Your task to perform on an android device: Open location settings Image 0: 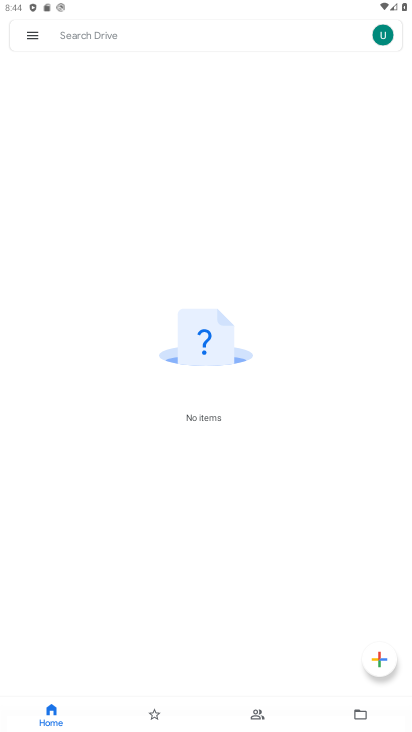
Step 0: press home button
Your task to perform on an android device: Open location settings Image 1: 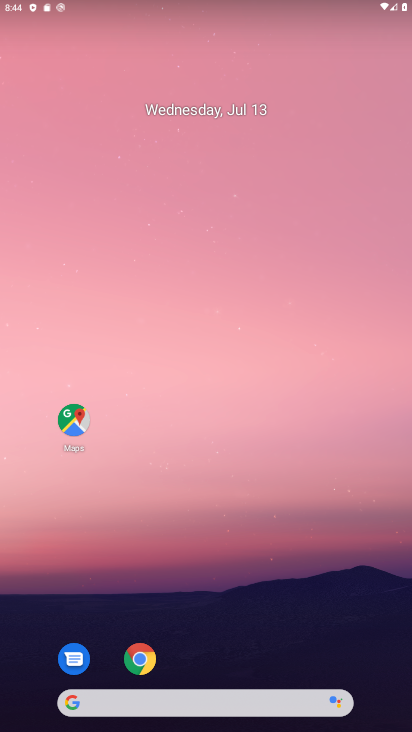
Step 1: drag from (235, 650) to (244, 111)
Your task to perform on an android device: Open location settings Image 2: 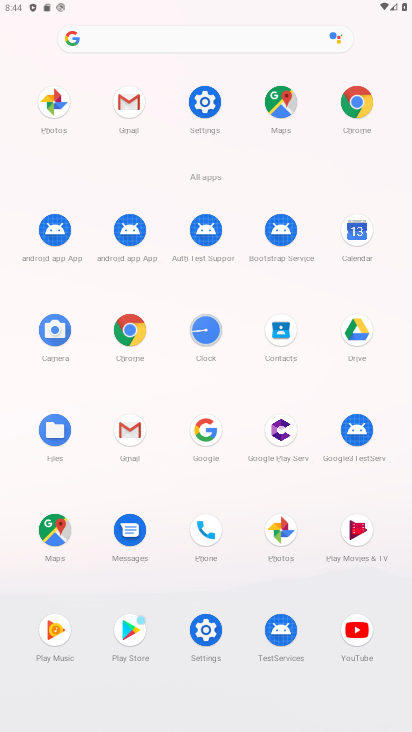
Step 2: click (204, 97)
Your task to perform on an android device: Open location settings Image 3: 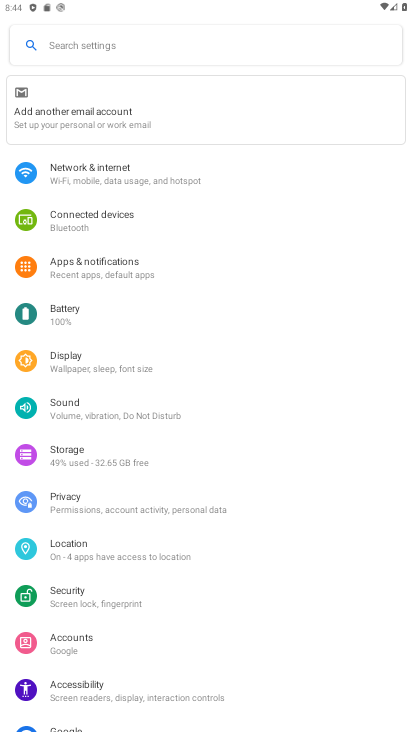
Step 3: click (87, 552)
Your task to perform on an android device: Open location settings Image 4: 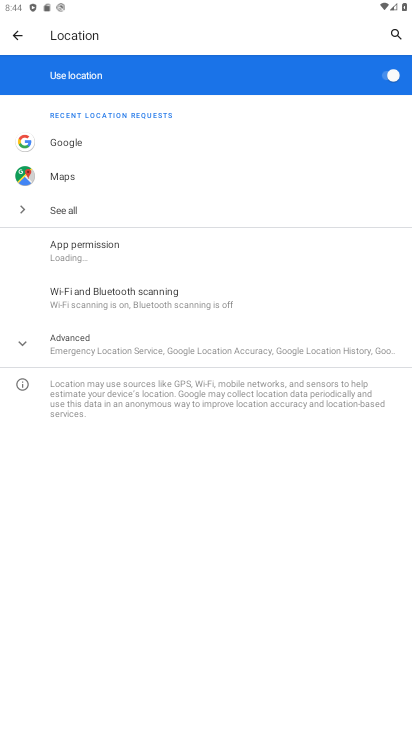
Step 4: task complete